Your task to perform on an android device: uninstall "ColorNote Notepad Notes" Image 0: 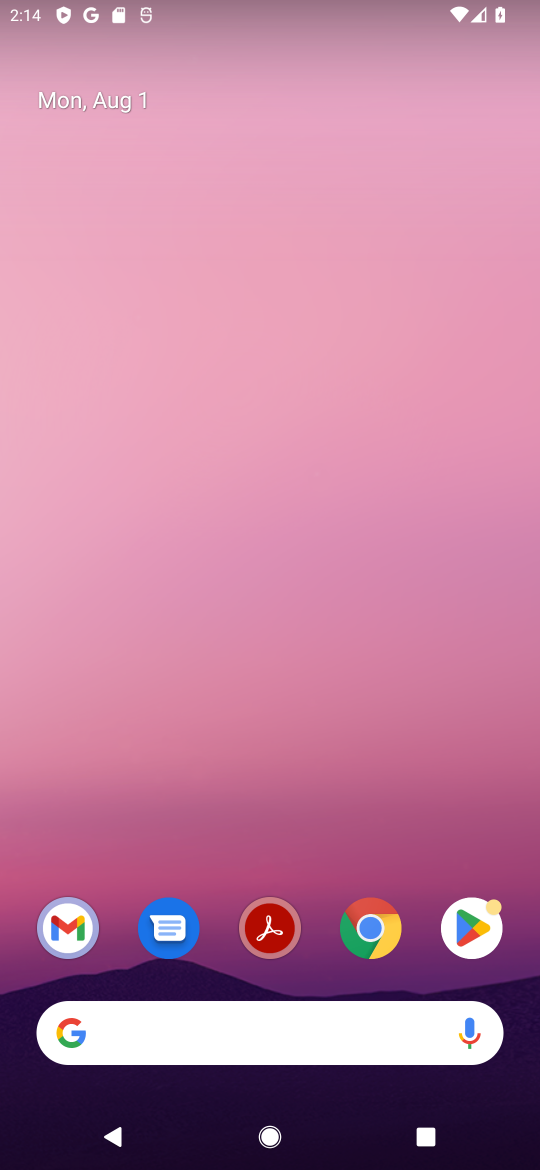
Step 0: press home button
Your task to perform on an android device: uninstall "ColorNote Notepad Notes" Image 1: 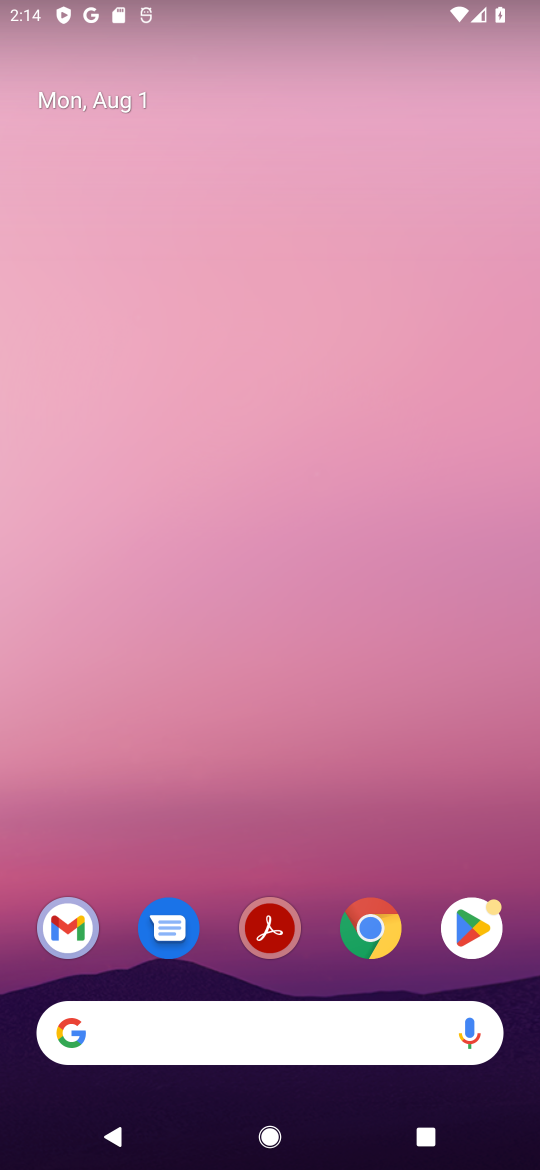
Step 1: click (456, 925)
Your task to perform on an android device: uninstall "ColorNote Notepad Notes" Image 2: 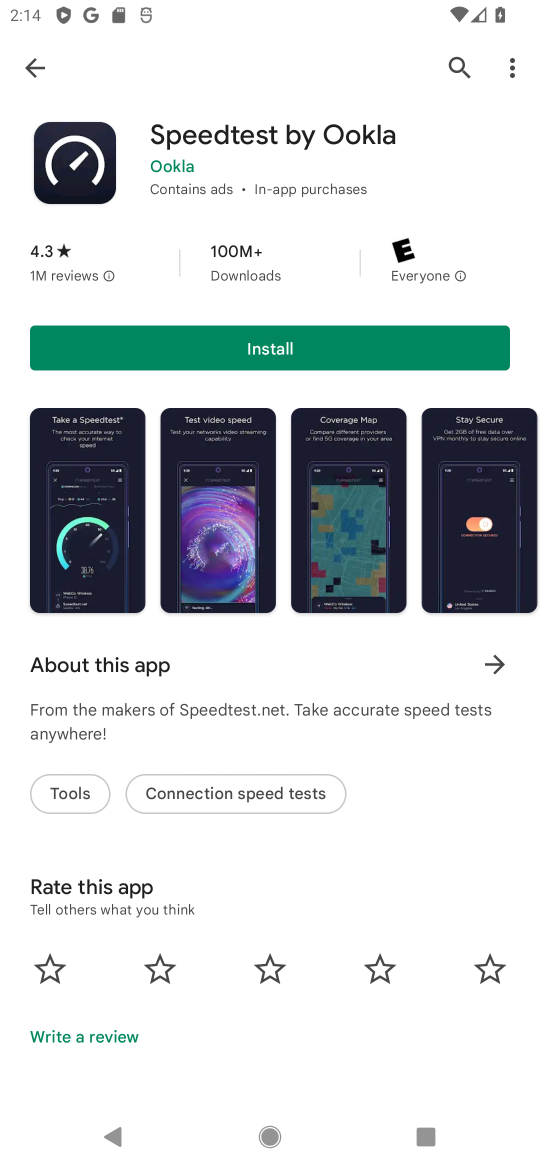
Step 2: click (453, 60)
Your task to perform on an android device: uninstall "ColorNote Notepad Notes" Image 3: 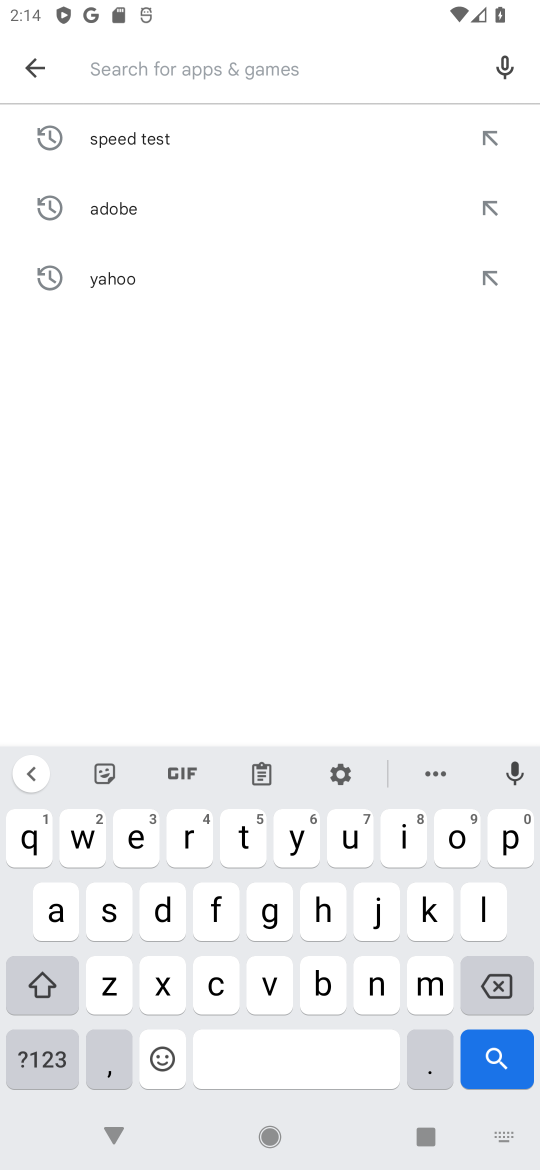
Step 3: click (264, 66)
Your task to perform on an android device: uninstall "ColorNote Notepad Notes" Image 4: 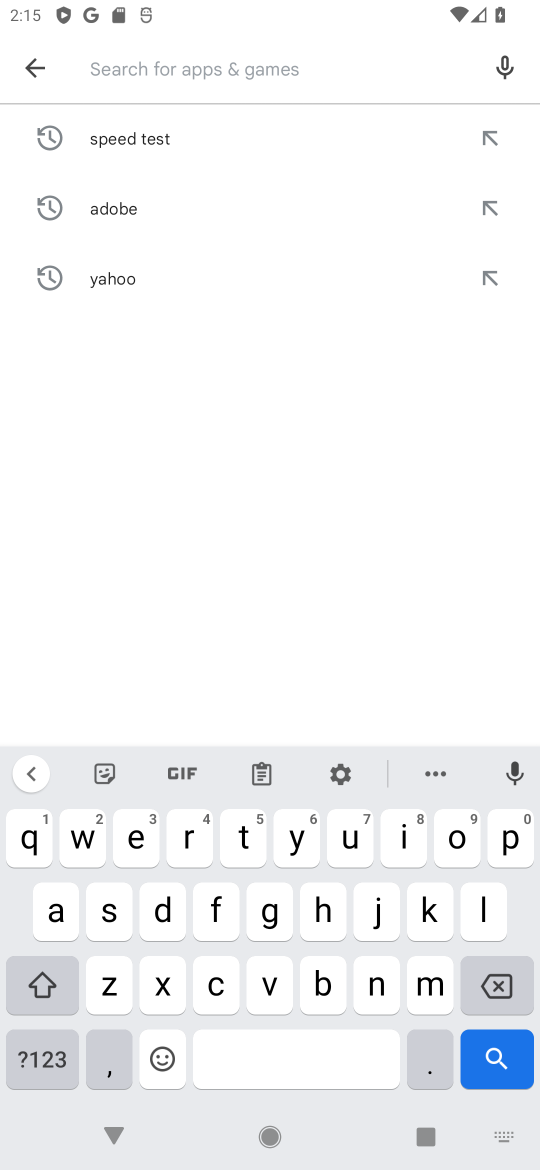
Step 4: click (211, 975)
Your task to perform on an android device: uninstall "ColorNote Notepad Notes" Image 5: 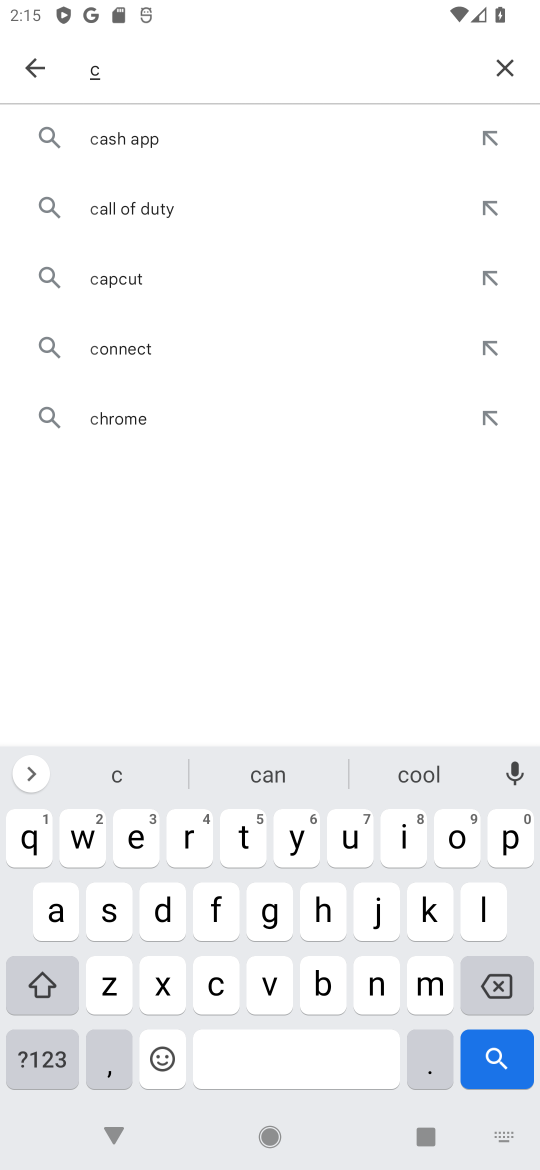
Step 5: click (462, 838)
Your task to perform on an android device: uninstall "ColorNote Notepad Notes" Image 6: 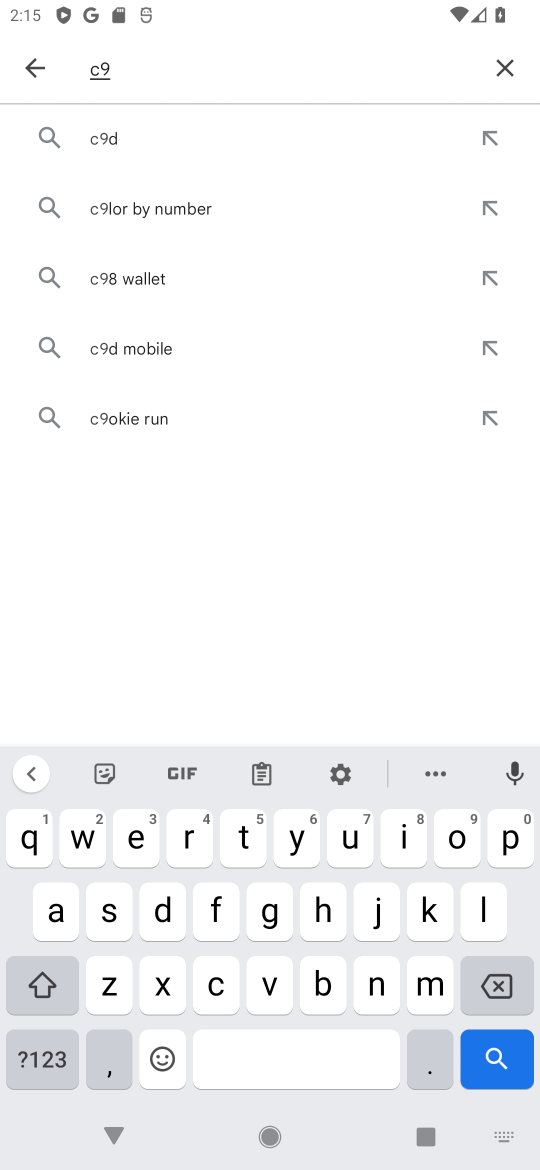
Step 6: click (483, 911)
Your task to perform on an android device: uninstall "ColorNote Notepad Notes" Image 7: 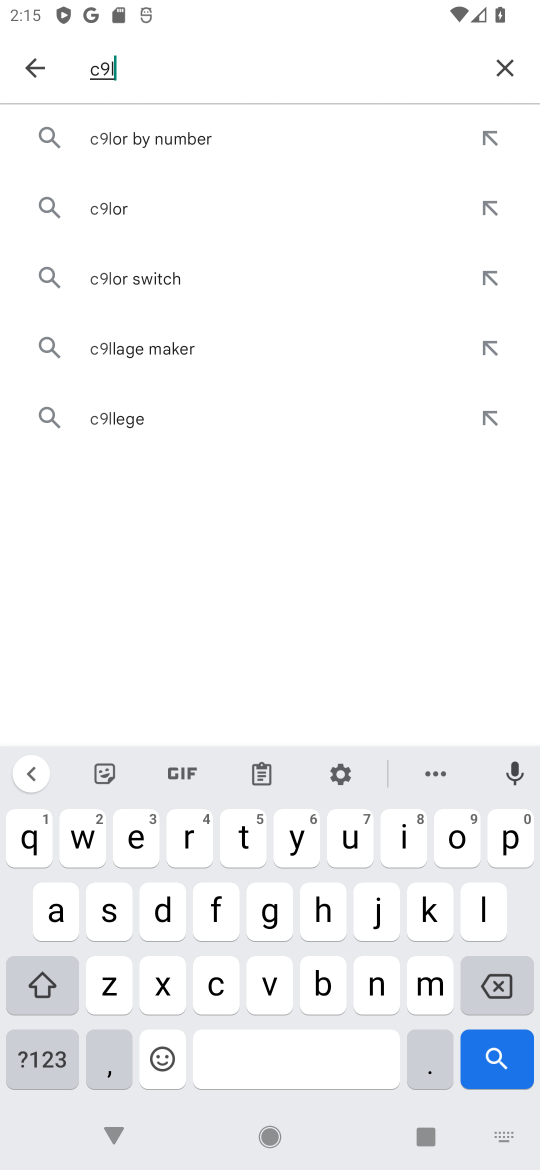
Step 7: click (505, 992)
Your task to perform on an android device: uninstall "ColorNote Notepad Notes" Image 8: 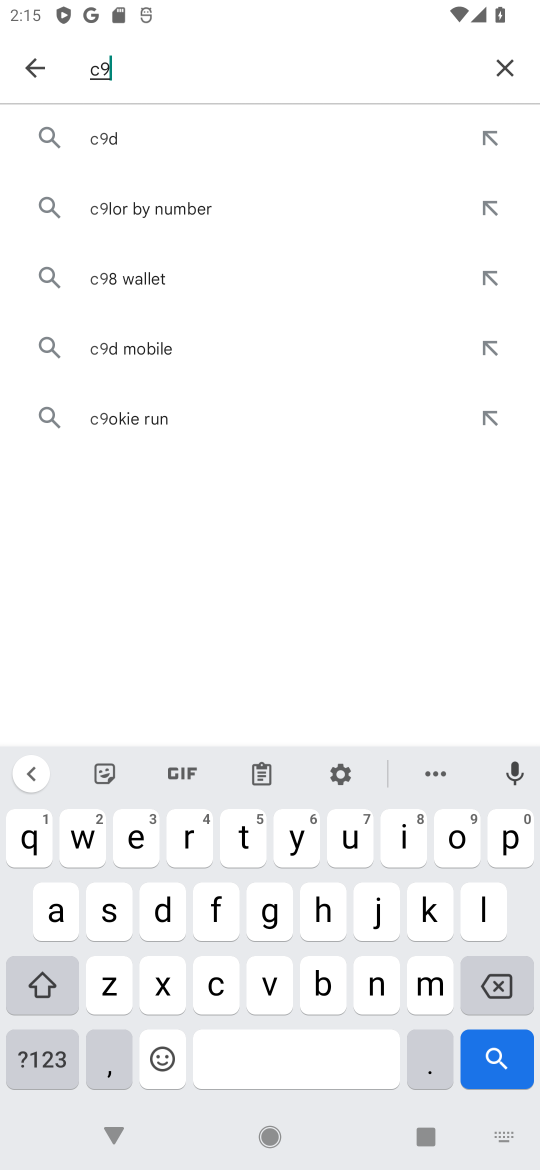
Step 8: click (505, 992)
Your task to perform on an android device: uninstall "ColorNote Notepad Notes" Image 9: 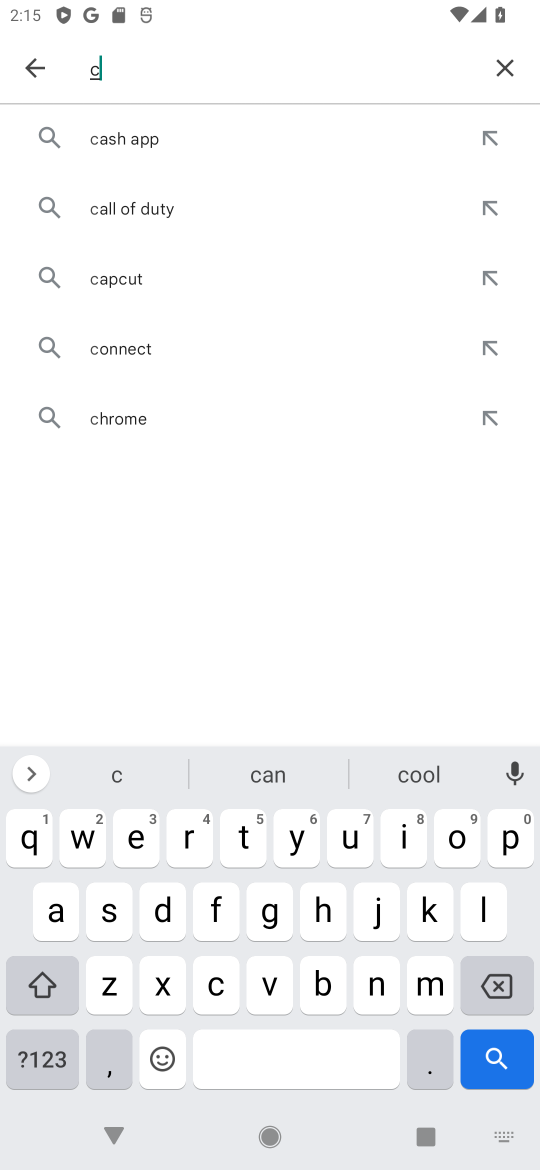
Step 9: click (454, 841)
Your task to perform on an android device: uninstall "ColorNote Notepad Notes" Image 10: 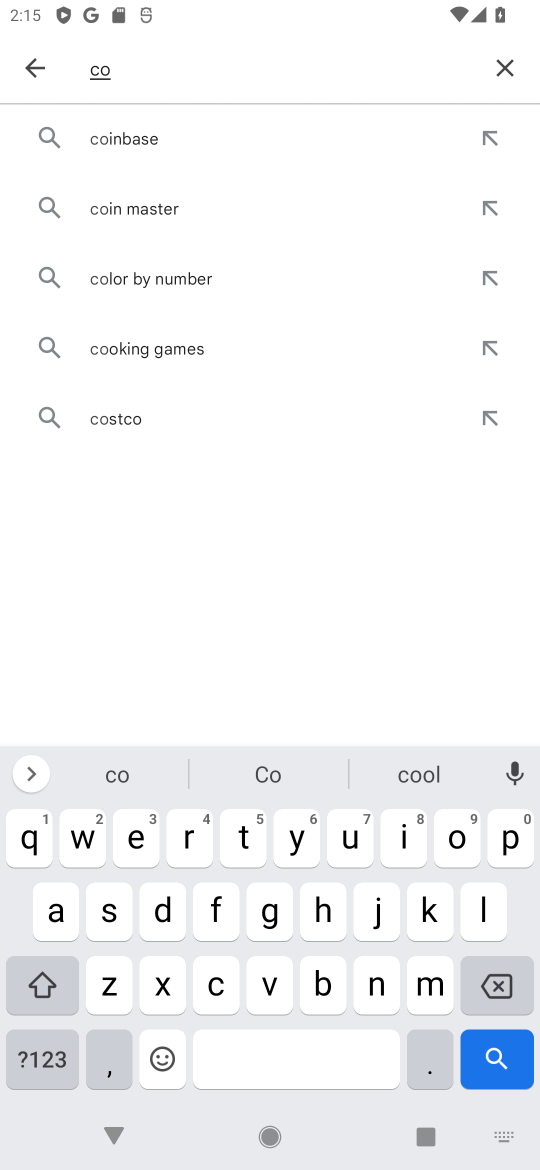
Step 10: click (485, 917)
Your task to perform on an android device: uninstall "ColorNote Notepad Notes" Image 11: 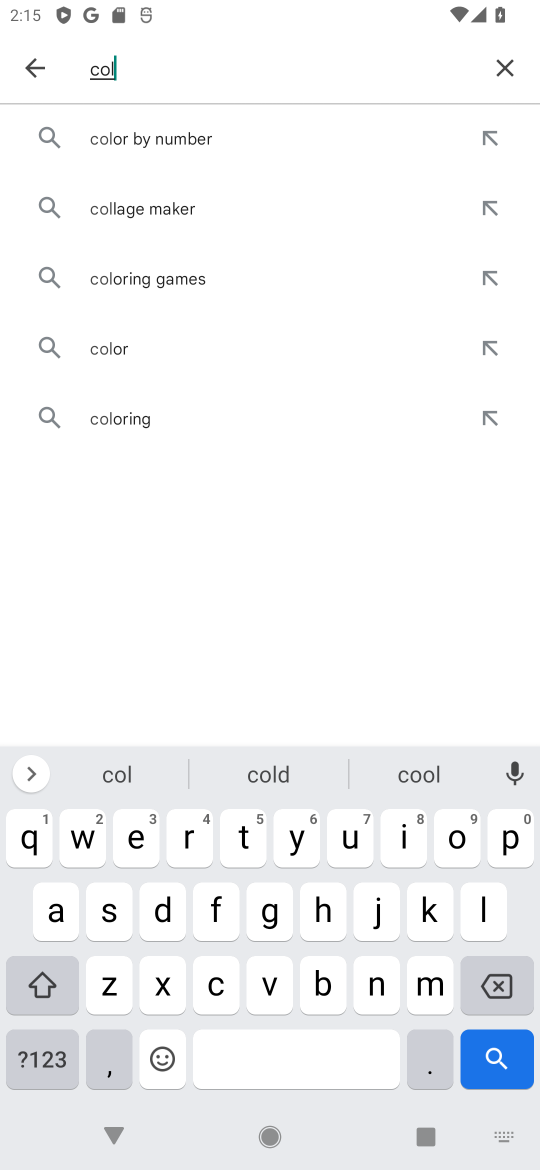
Step 11: click (456, 842)
Your task to perform on an android device: uninstall "ColorNote Notepad Notes" Image 12: 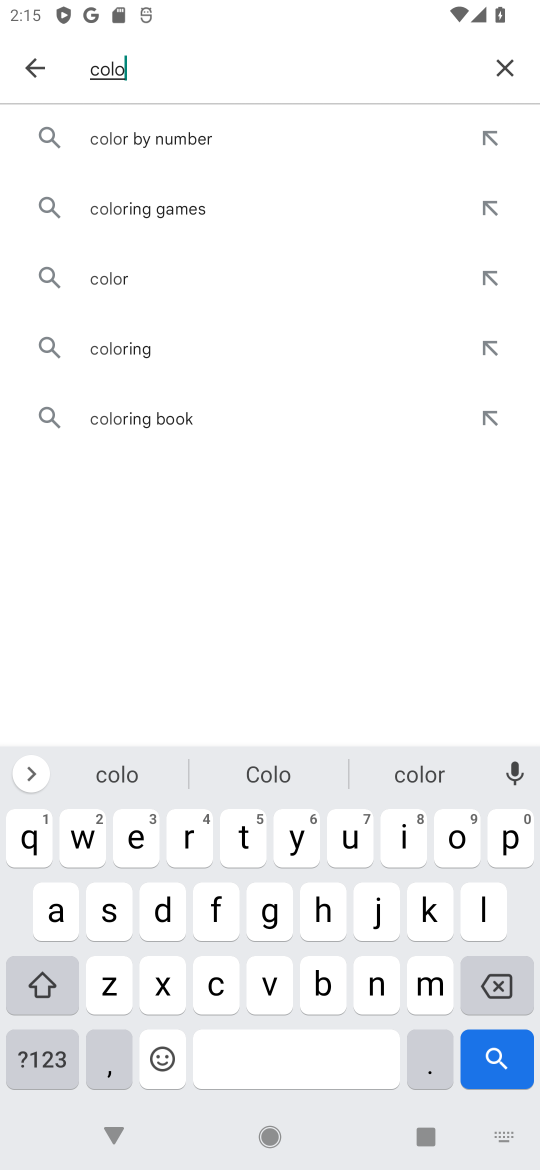
Step 12: click (420, 781)
Your task to perform on an android device: uninstall "ColorNote Notepad Notes" Image 13: 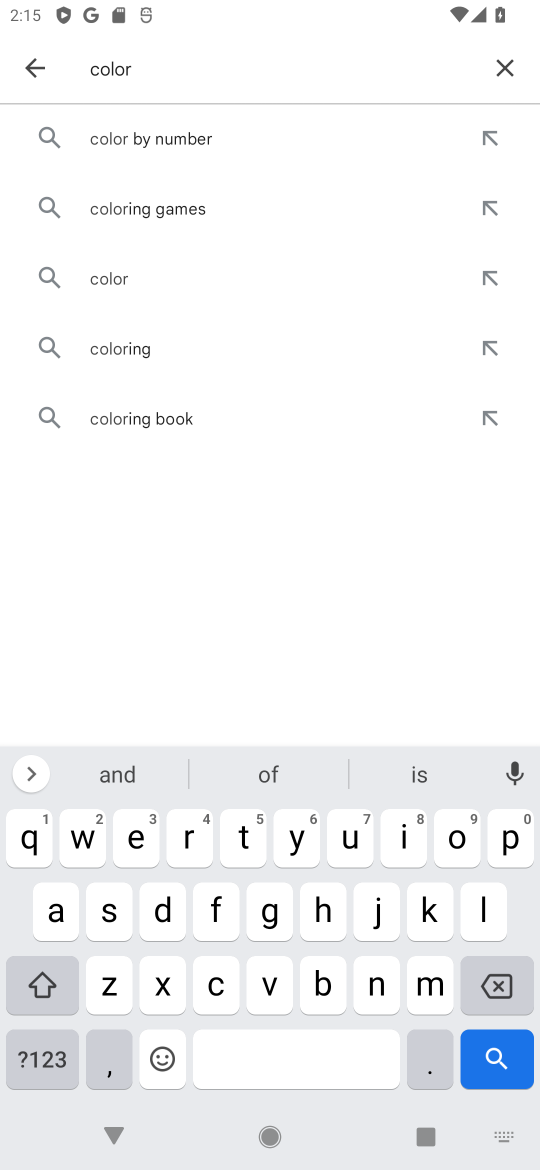
Step 13: click (377, 986)
Your task to perform on an android device: uninstall "ColorNote Notepad Notes" Image 14: 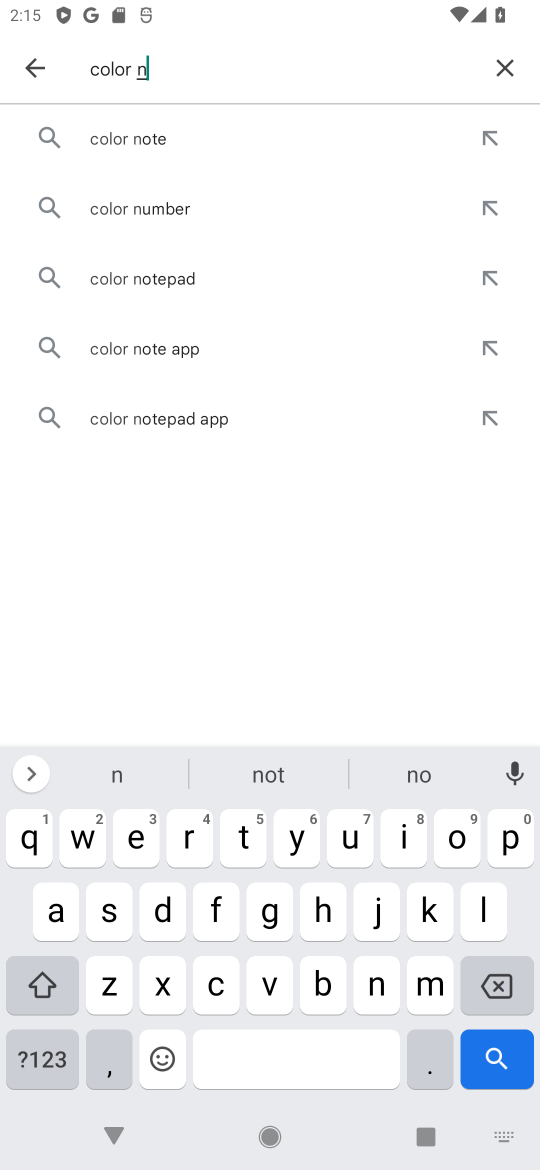
Step 14: click (186, 129)
Your task to perform on an android device: uninstall "ColorNote Notepad Notes" Image 15: 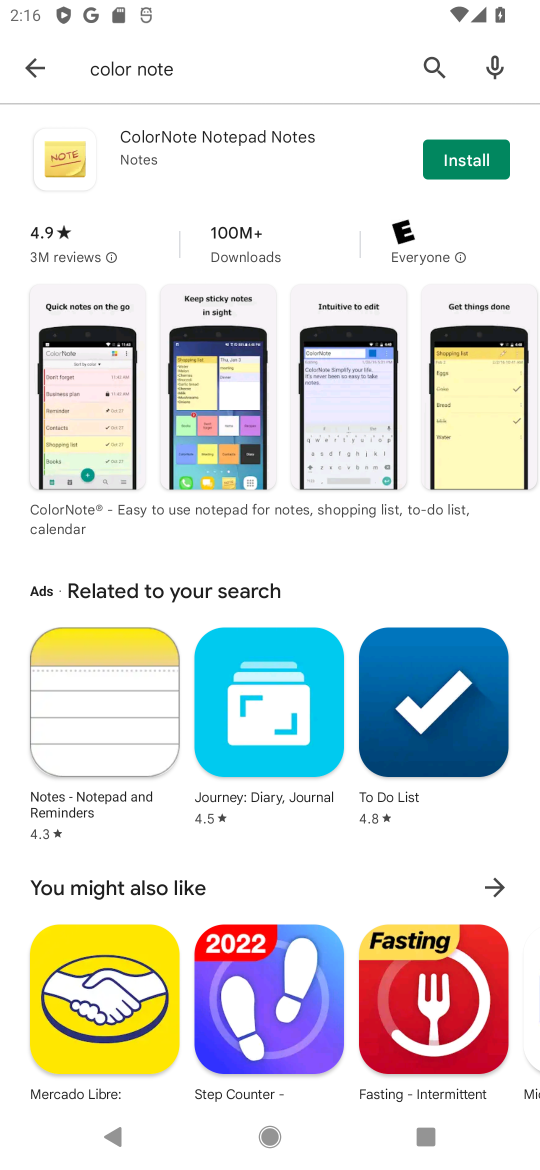
Step 15: task complete